Your task to perform on an android device: turn vacation reply on in the gmail app Image 0: 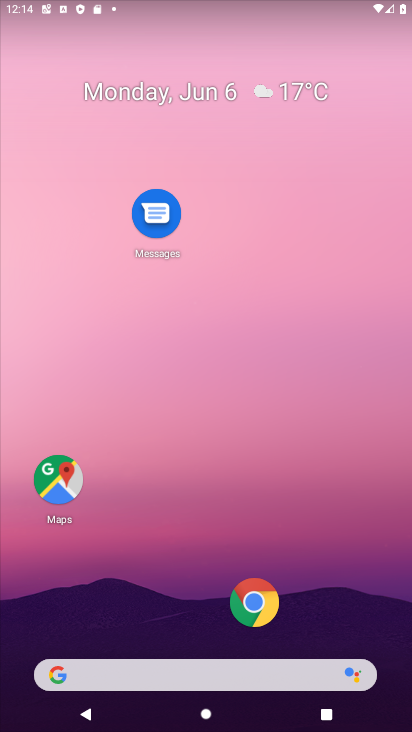
Step 0: drag from (360, 593) to (330, 254)
Your task to perform on an android device: turn vacation reply on in the gmail app Image 1: 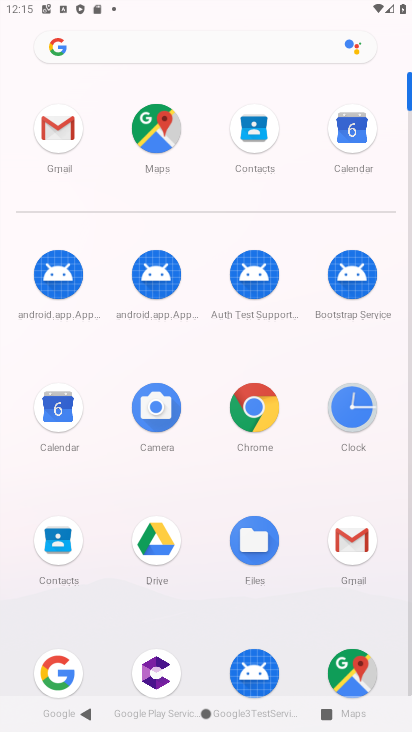
Step 1: click (74, 148)
Your task to perform on an android device: turn vacation reply on in the gmail app Image 2: 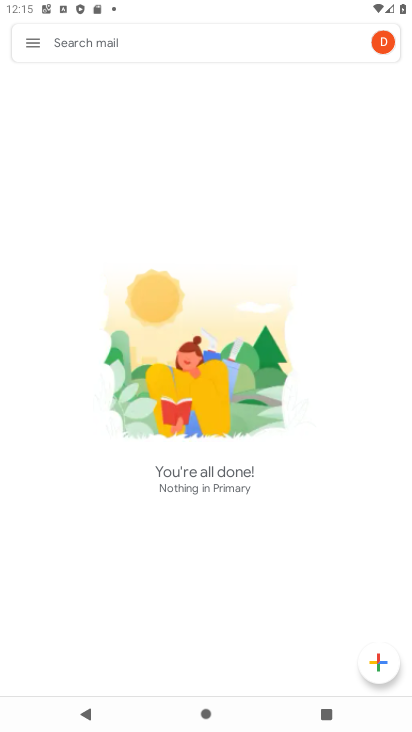
Step 2: task complete